Your task to perform on an android device: turn notification dots off Image 0: 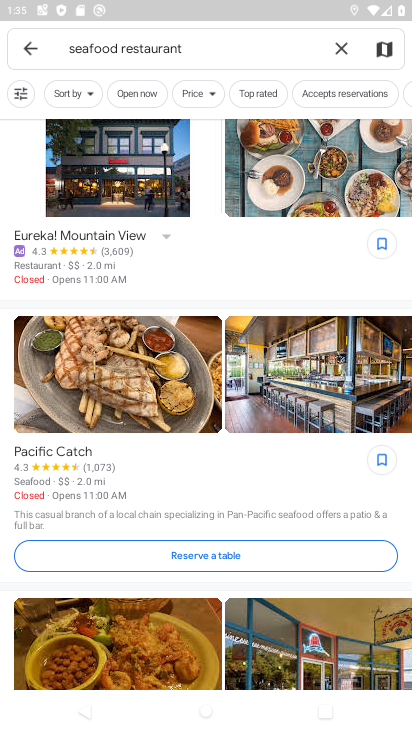
Step 0: press home button
Your task to perform on an android device: turn notification dots off Image 1: 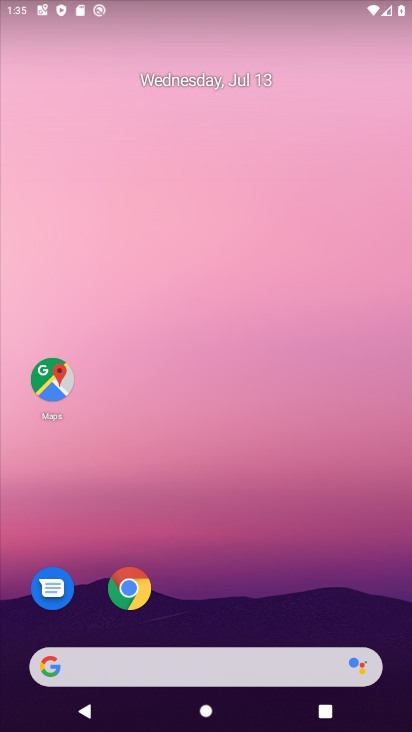
Step 1: drag from (148, 638) to (165, 252)
Your task to perform on an android device: turn notification dots off Image 2: 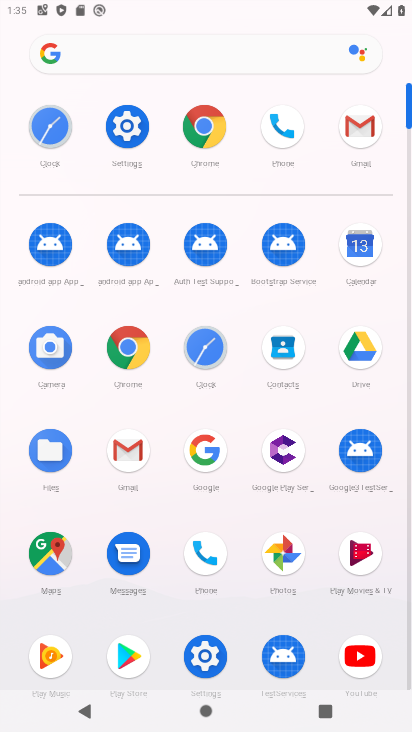
Step 2: click (198, 657)
Your task to perform on an android device: turn notification dots off Image 3: 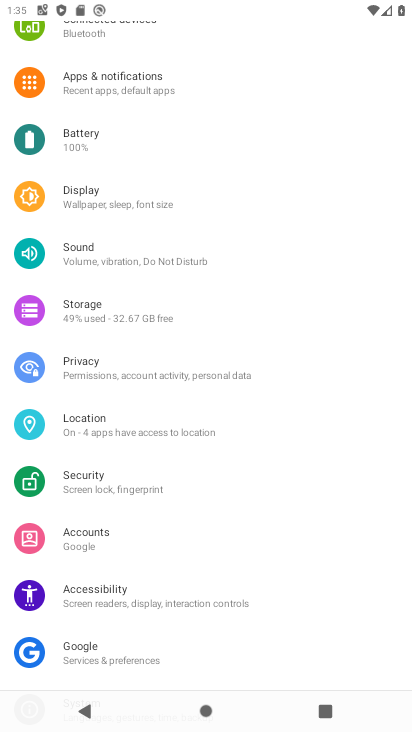
Step 3: click (87, 84)
Your task to perform on an android device: turn notification dots off Image 4: 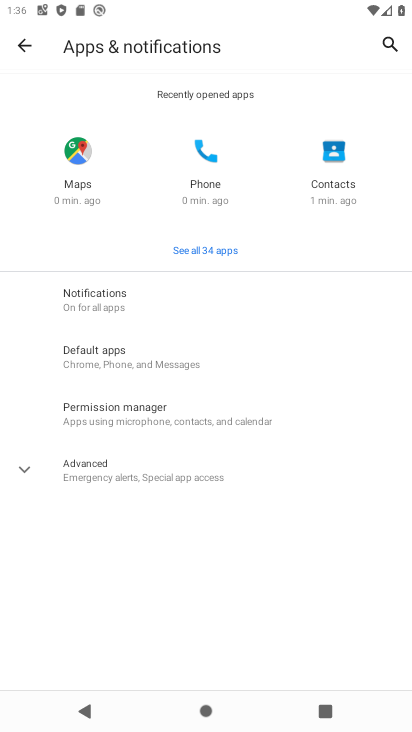
Step 4: click (87, 294)
Your task to perform on an android device: turn notification dots off Image 5: 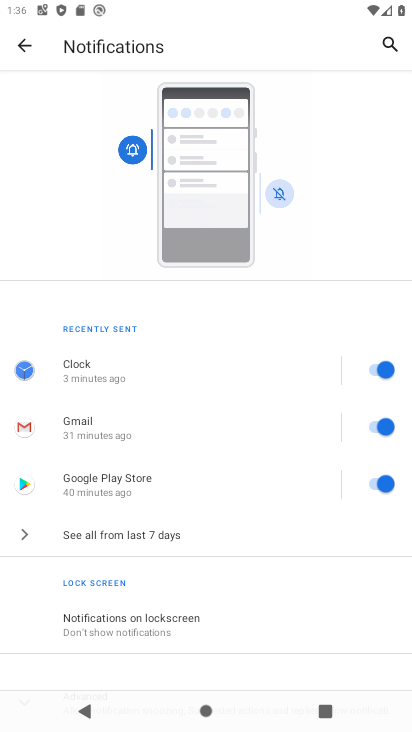
Step 5: drag from (139, 629) to (141, 324)
Your task to perform on an android device: turn notification dots off Image 6: 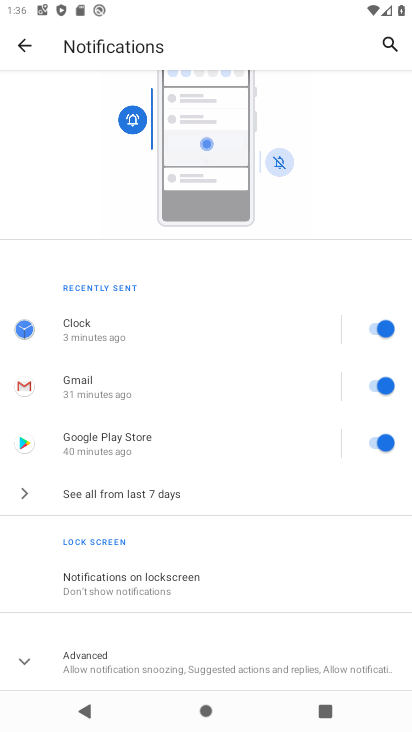
Step 6: click (83, 652)
Your task to perform on an android device: turn notification dots off Image 7: 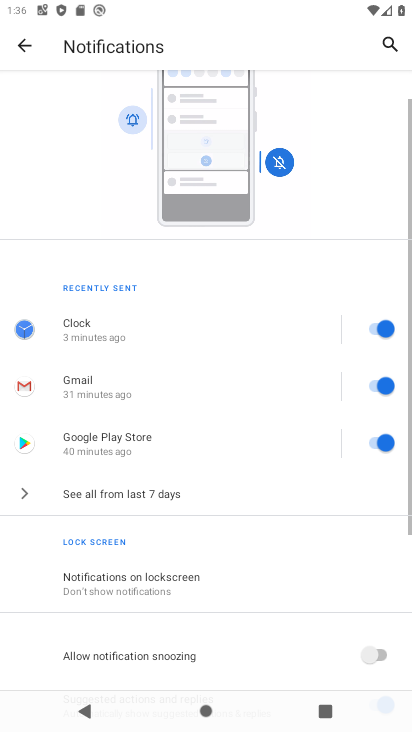
Step 7: task complete